Your task to perform on an android device: open a new tab in the chrome app Image 0: 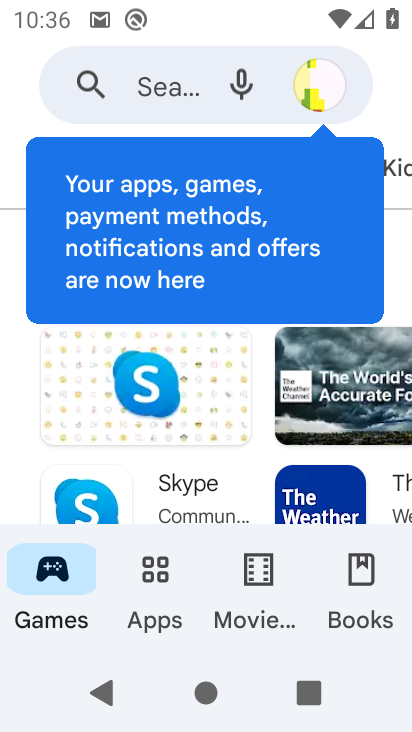
Step 0: press home button
Your task to perform on an android device: open a new tab in the chrome app Image 1: 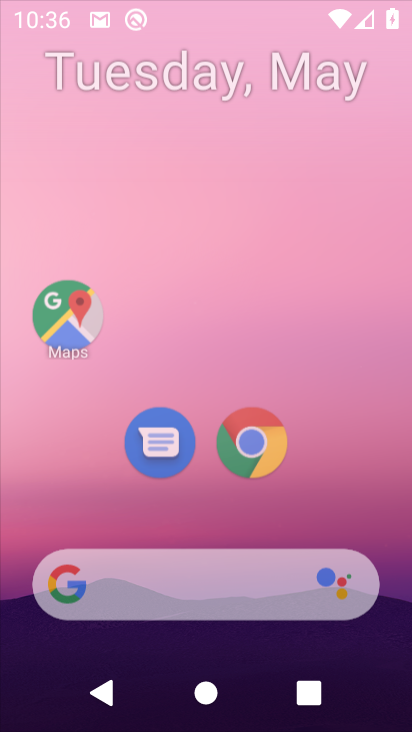
Step 1: drag from (207, 582) to (292, 49)
Your task to perform on an android device: open a new tab in the chrome app Image 2: 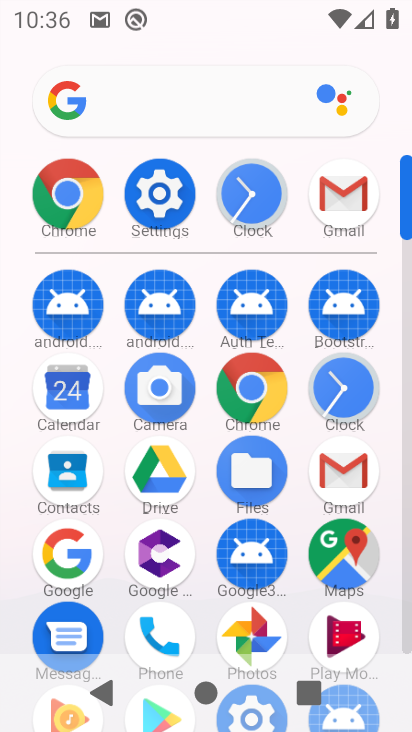
Step 2: click (238, 411)
Your task to perform on an android device: open a new tab in the chrome app Image 3: 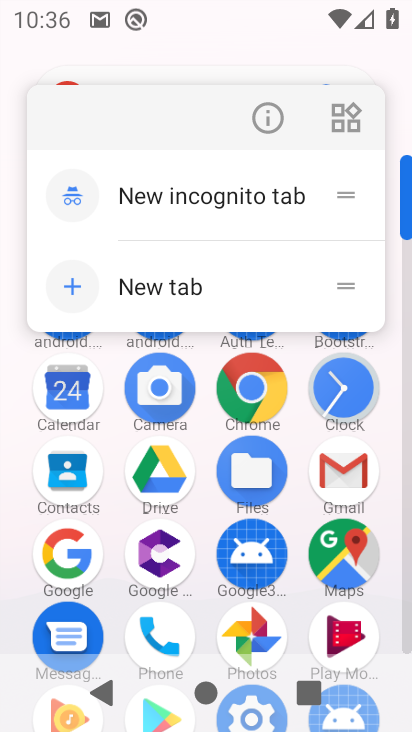
Step 3: click (184, 289)
Your task to perform on an android device: open a new tab in the chrome app Image 4: 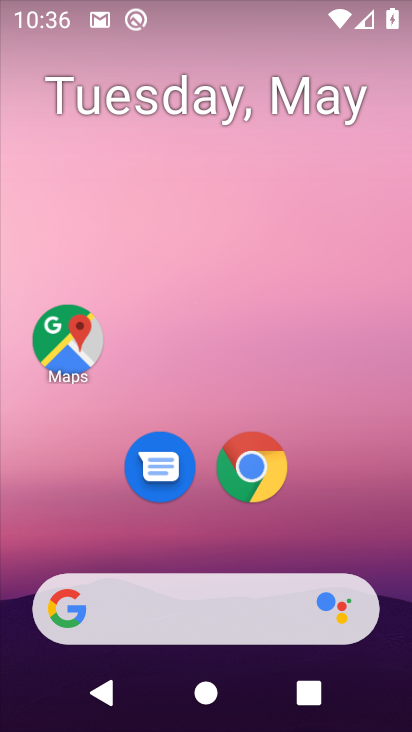
Step 4: drag from (211, 557) to (205, 22)
Your task to perform on an android device: open a new tab in the chrome app Image 5: 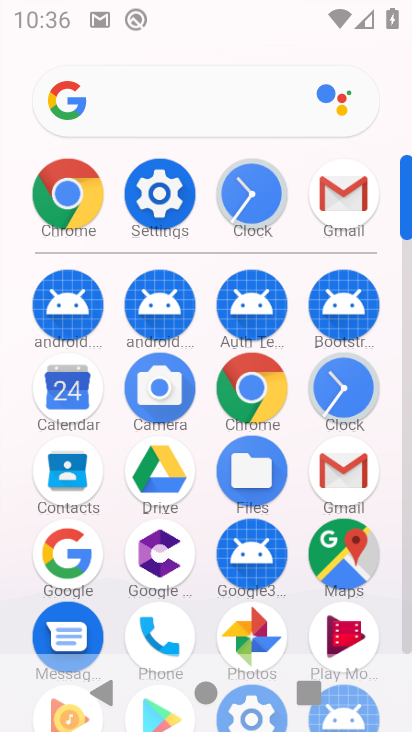
Step 5: click (62, 193)
Your task to perform on an android device: open a new tab in the chrome app Image 6: 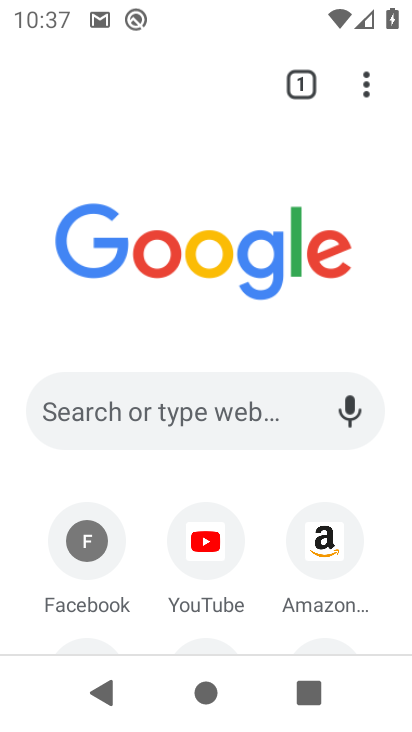
Step 6: click (364, 88)
Your task to perform on an android device: open a new tab in the chrome app Image 7: 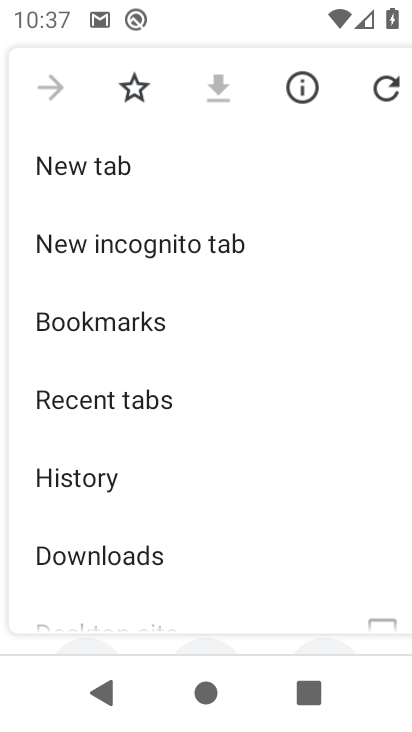
Step 7: click (134, 177)
Your task to perform on an android device: open a new tab in the chrome app Image 8: 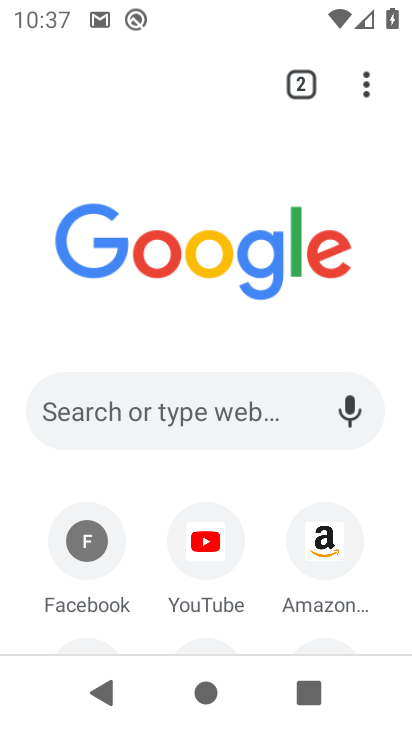
Step 8: drag from (255, 580) to (287, 252)
Your task to perform on an android device: open a new tab in the chrome app Image 9: 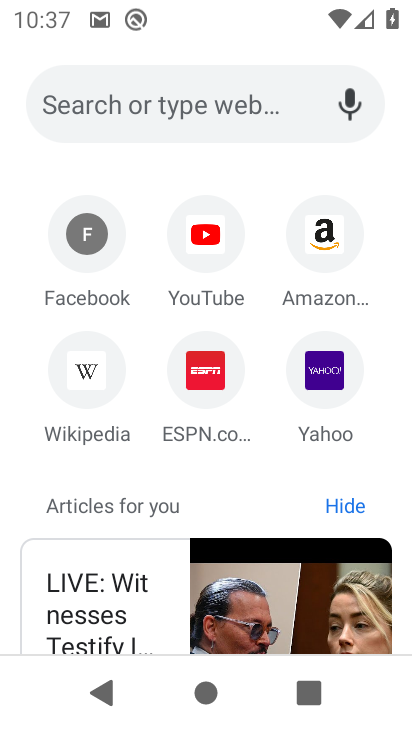
Step 9: click (303, 244)
Your task to perform on an android device: open a new tab in the chrome app Image 10: 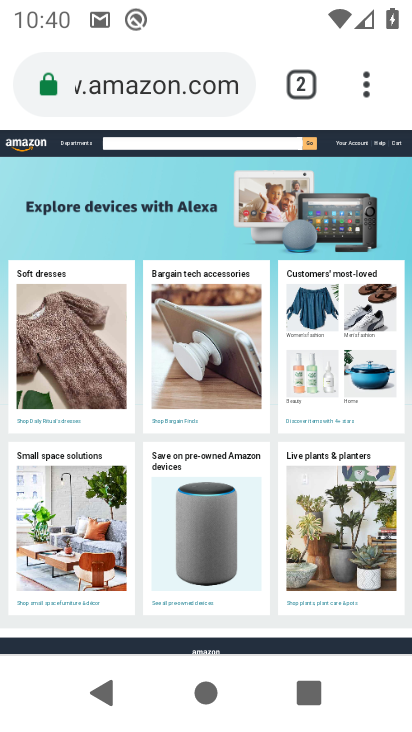
Step 10: click (315, 75)
Your task to perform on an android device: open a new tab in the chrome app Image 11: 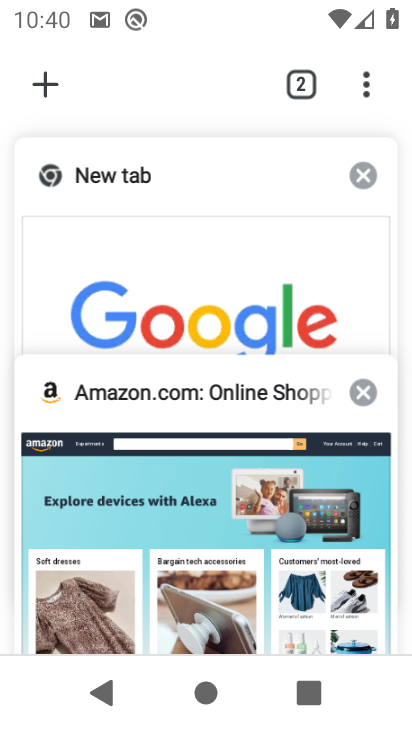
Step 11: click (39, 66)
Your task to perform on an android device: open a new tab in the chrome app Image 12: 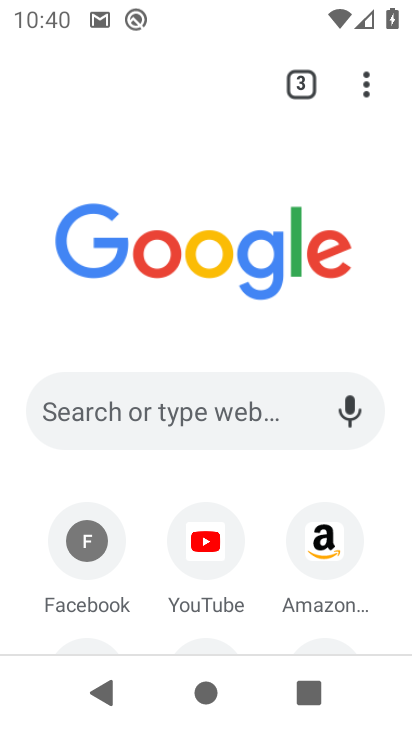
Step 12: task complete